Your task to perform on an android device: Set the phone to "Do not disturb". Image 0: 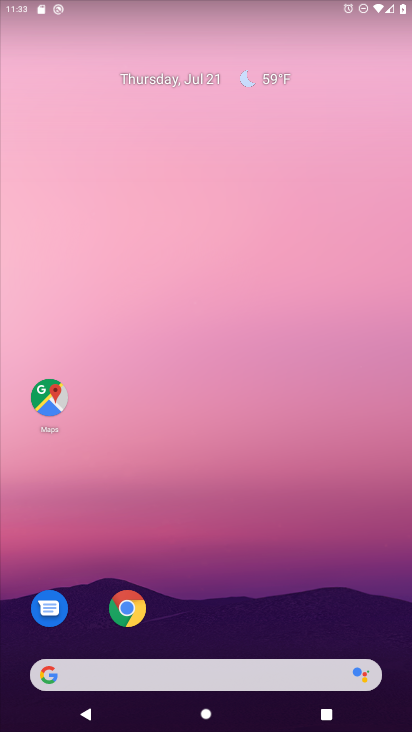
Step 0: drag from (350, 595) to (234, 43)
Your task to perform on an android device: Set the phone to "Do not disturb". Image 1: 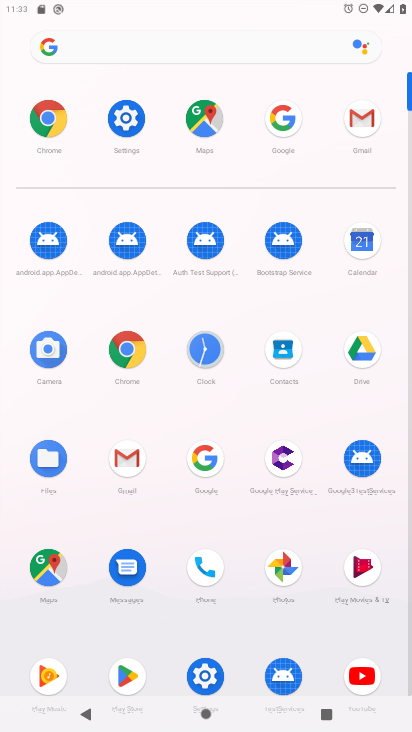
Step 1: task complete